Your task to perform on an android device: Set the phone to "Do not disturb". Image 0: 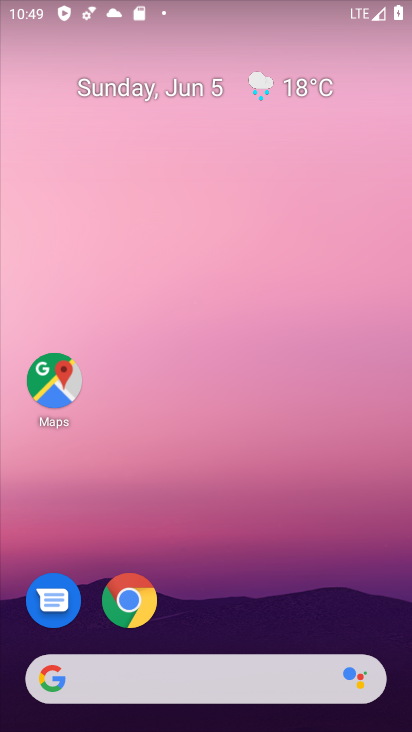
Step 0: drag from (223, 634) to (194, 220)
Your task to perform on an android device: Set the phone to "Do not disturb". Image 1: 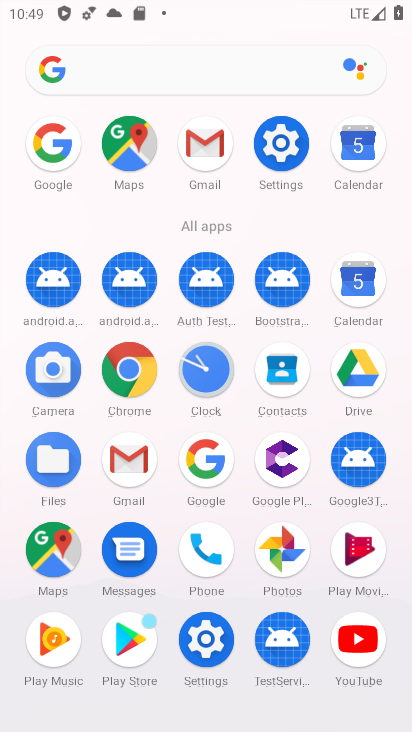
Step 1: click (265, 158)
Your task to perform on an android device: Set the phone to "Do not disturb". Image 2: 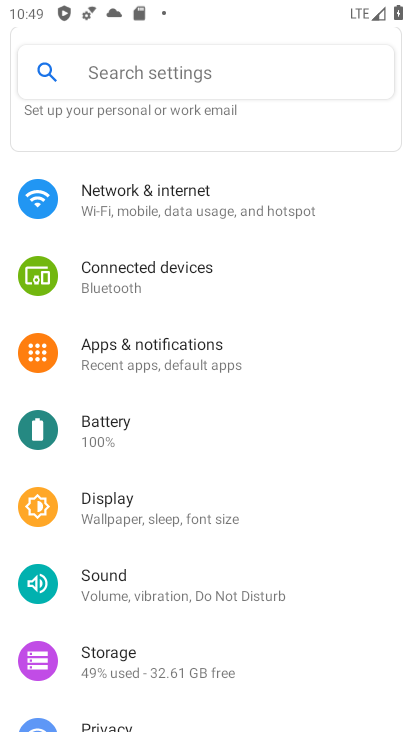
Step 2: click (149, 598)
Your task to perform on an android device: Set the phone to "Do not disturb". Image 3: 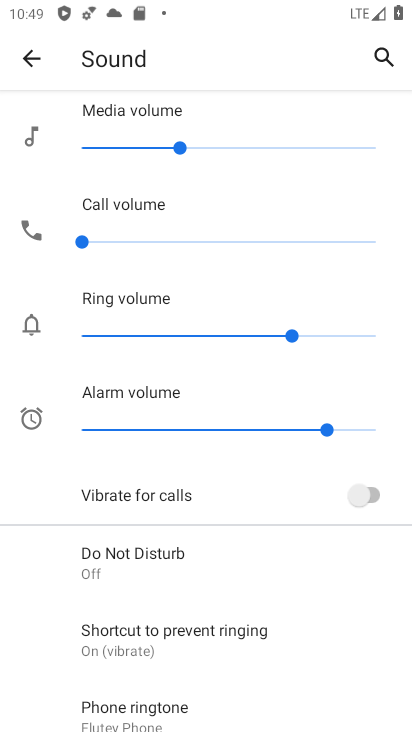
Step 3: drag from (171, 641) to (192, 425)
Your task to perform on an android device: Set the phone to "Do not disturb". Image 4: 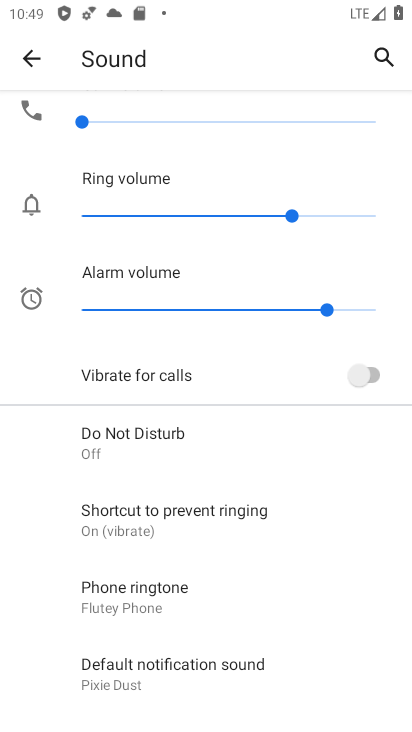
Step 4: click (149, 456)
Your task to perform on an android device: Set the phone to "Do not disturb". Image 5: 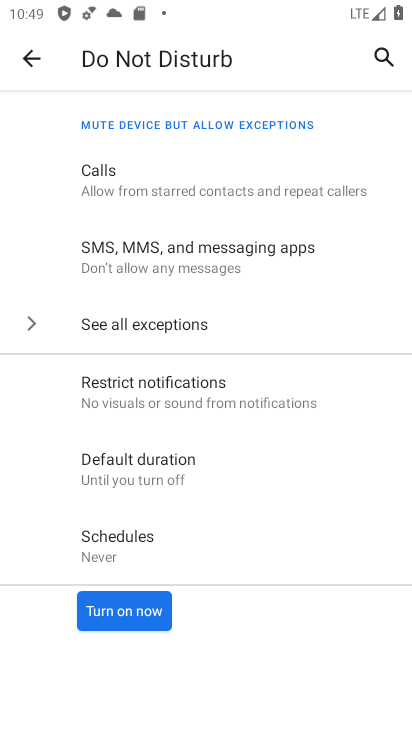
Step 5: click (119, 611)
Your task to perform on an android device: Set the phone to "Do not disturb". Image 6: 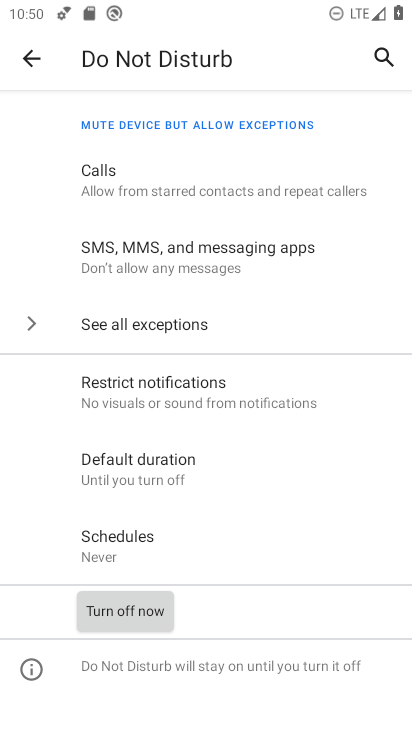
Step 6: task complete